Your task to perform on an android device: stop showing notifications on the lock screen Image 0: 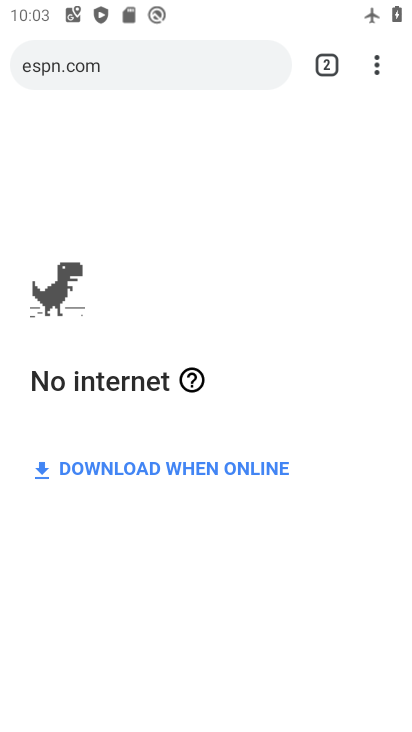
Step 0: press home button
Your task to perform on an android device: stop showing notifications on the lock screen Image 1: 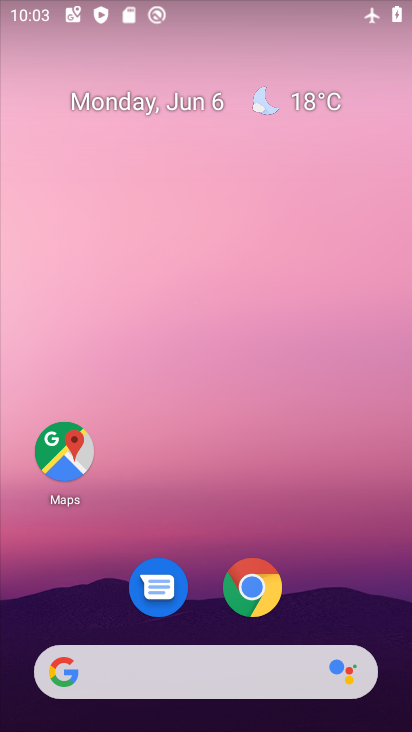
Step 1: drag from (355, 581) to (346, 89)
Your task to perform on an android device: stop showing notifications on the lock screen Image 2: 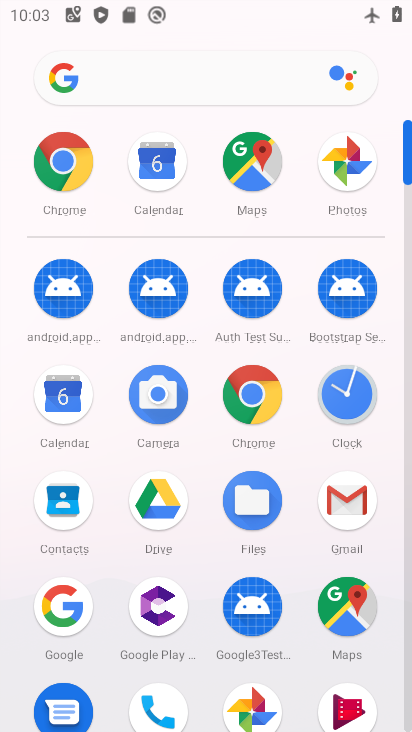
Step 2: drag from (304, 653) to (322, 267)
Your task to perform on an android device: stop showing notifications on the lock screen Image 3: 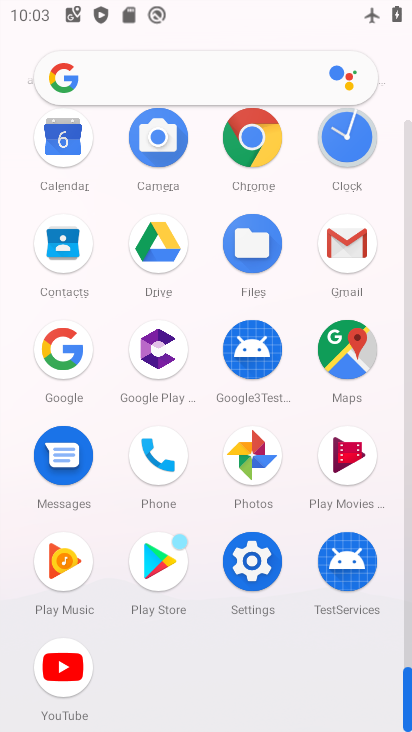
Step 3: click (241, 566)
Your task to perform on an android device: stop showing notifications on the lock screen Image 4: 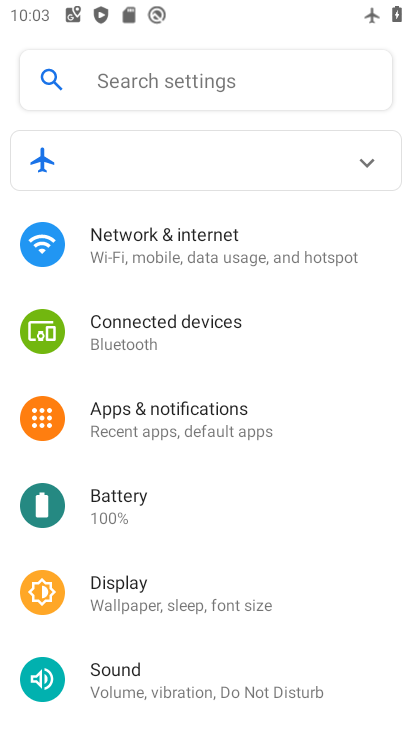
Step 4: click (202, 425)
Your task to perform on an android device: stop showing notifications on the lock screen Image 5: 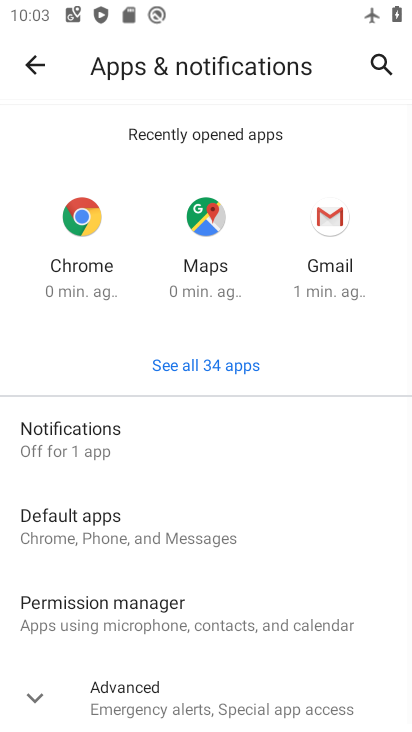
Step 5: click (108, 436)
Your task to perform on an android device: stop showing notifications on the lock screen Image 6: 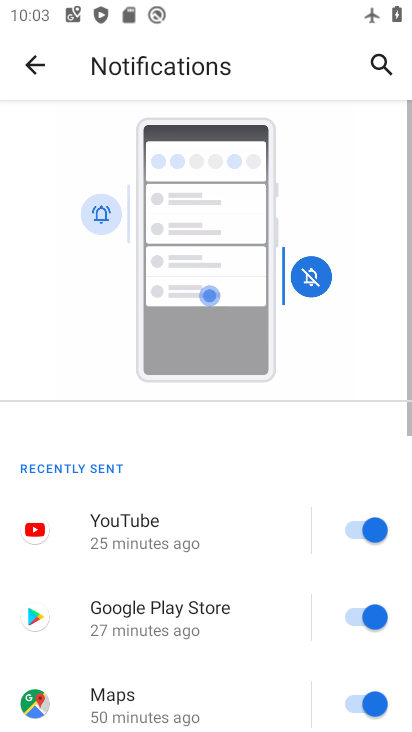
Step 6: drag from (202, 641) to (249, 72)
Your task to perform on an android device: stop showing notifications on the lock screen Image 7: 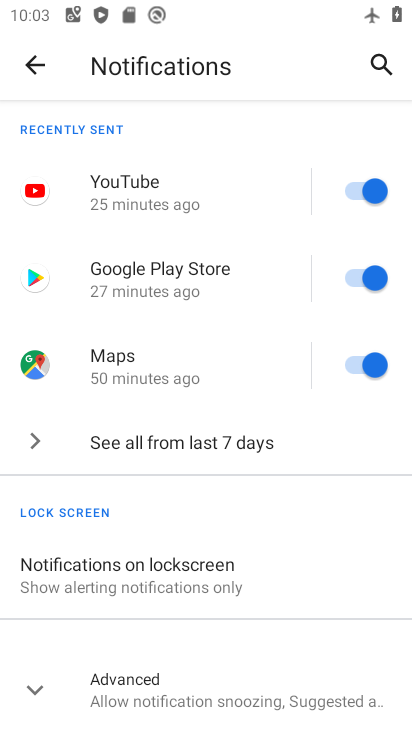
Step 7: click (202, 577)
Your task to perform on an android device: stop showing notifications on the lock screen Image 8: 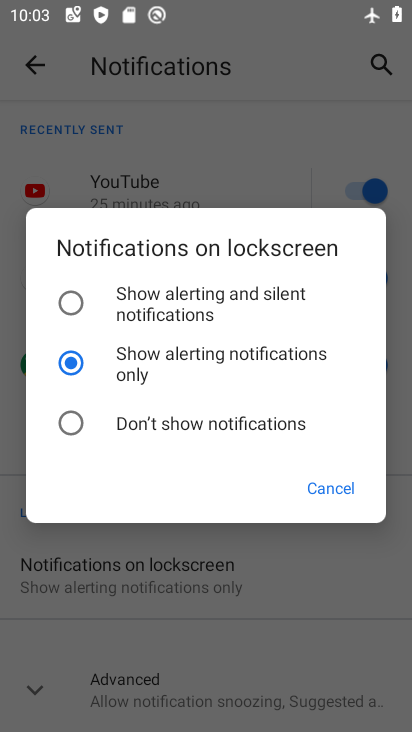
Step 8: click (229, 418)
Your task to perform on an android device: stop showing notifications on the lock screen Image 9: 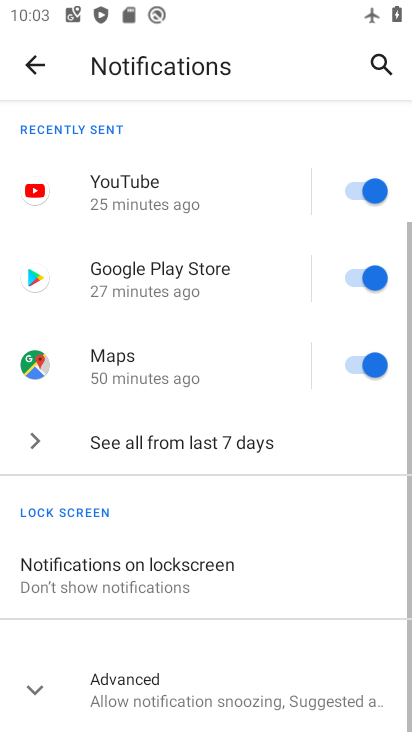
Step 9: task complete